Your task to perform on an android device: see tabs open on other devices in the chrome app Image 0: 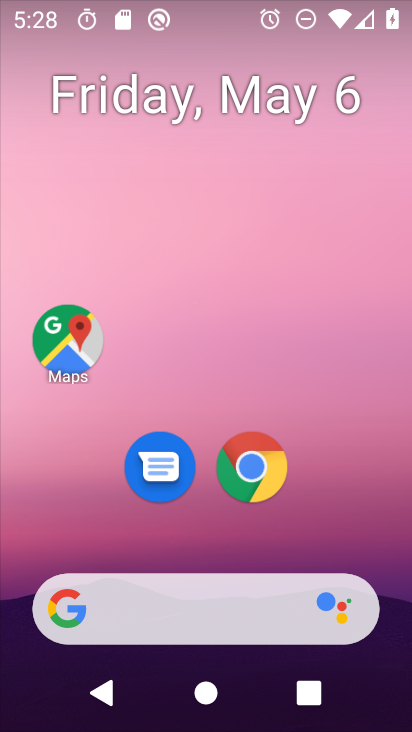
Step 0: drag from (330, 563) to (308, 172)
Your task to perform on an android device: see tabs open on other devices in the chrome app Image 1: 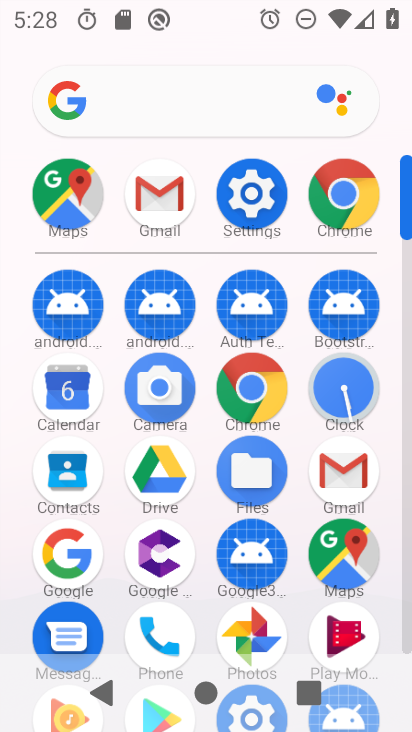
Step 1: click (343, 217)
Your task to perform on an android device: see tabs open on other devices in the chrome app Image 2: 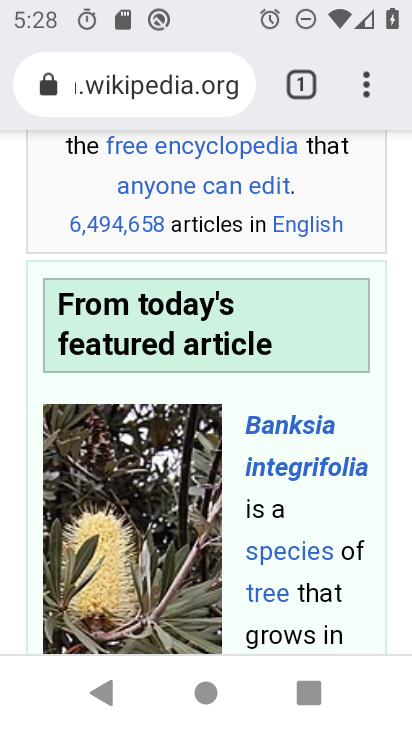
Step 2: click (367, 81)
Your task to perform on an android device: see tabs open on other devices in the chrome app Image 3: 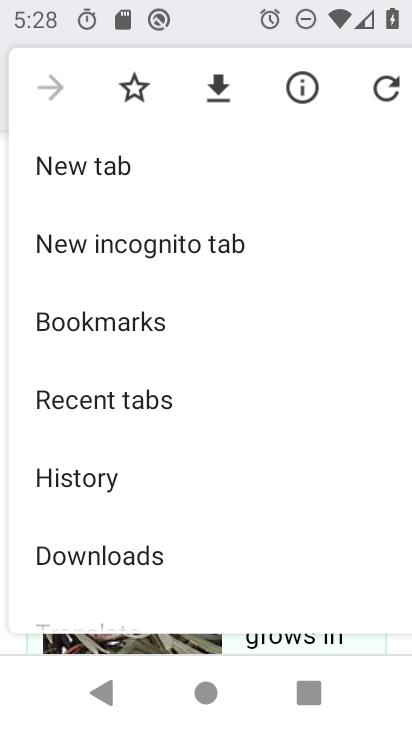
Step 3: drag from (157, 500) to (205, 245)
Your task to perform on an android device: see tabs open on other devices in the chrome app Image 4: 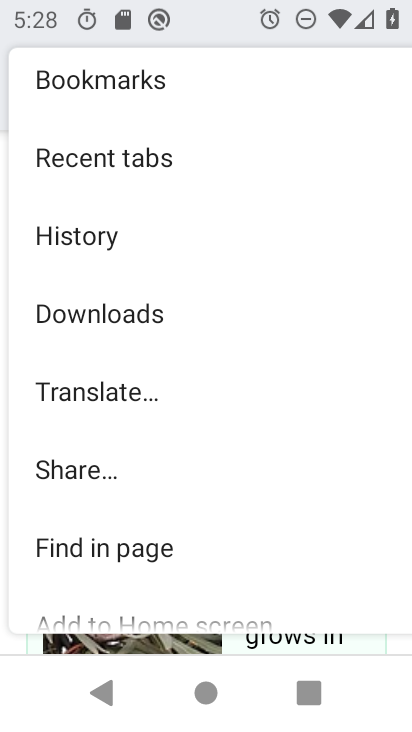
Step 4: drag from (148, 476) to (178, 256)
Your task to perform on an android device: see tabs open on other devices in the chrome app Image 5: 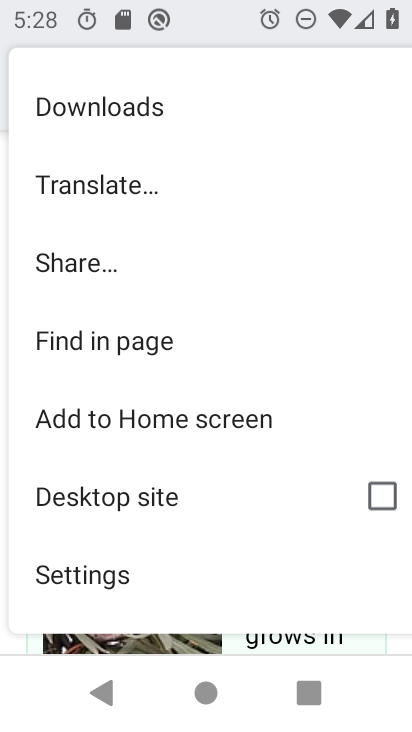
Step 5: drag from (241, 256) to (203, 546)
Your task to perform on an android device: see tabs open on other devices in the chrome app Image 6: 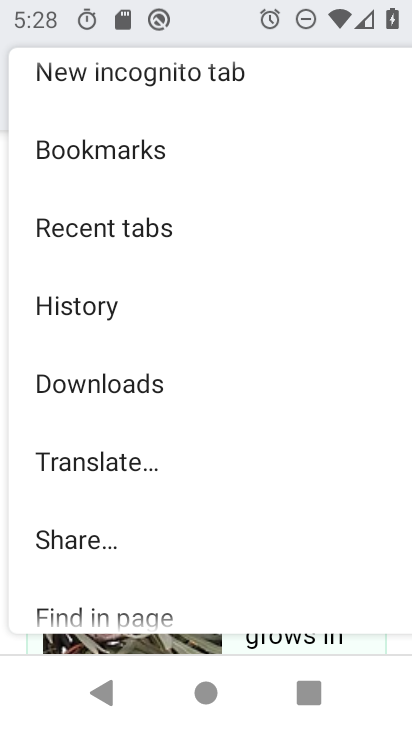
Step 6: drag from (236, 263) to (225, 546)
Your task to perform on an android device: see tabs open on other devices in the chrome app Image 7: 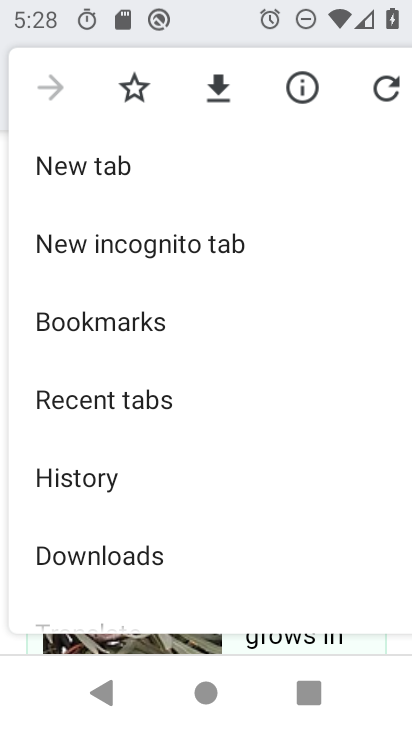
Step 7: click (92, 412)
Your task to perform on an android device: see tabs open on other devices in the chrome app Image 8: 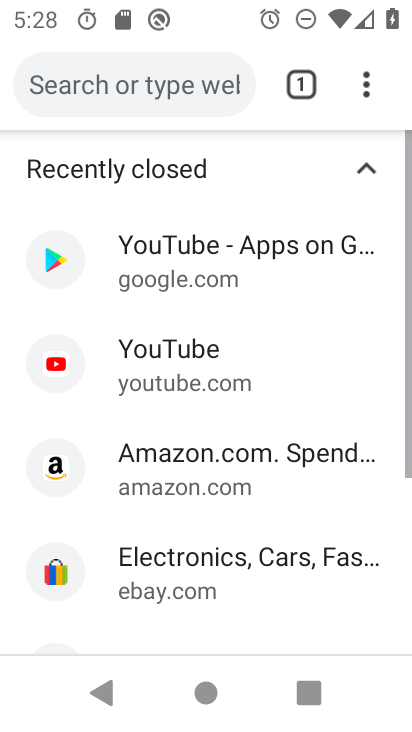
Step 8: task complete